Your task to perform on an android device: turn off sleep mode Image 0: 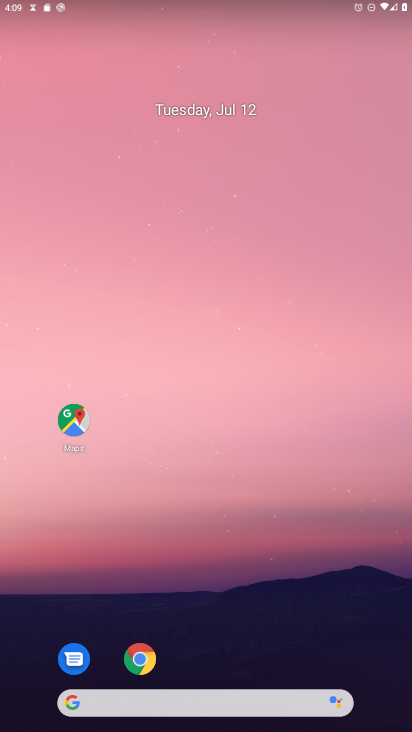
Step 0: drag from (189, 380) to (199, 185)
Your task to perform on an android device: turn off sleep mode Image 1: 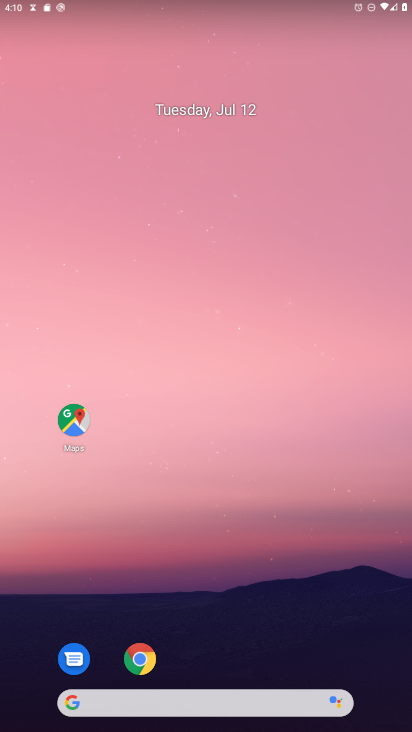
Step 1: drag from (199, 668) to (164, 77)
Your task to perform on an android device: turn off sleep mode Image 2: 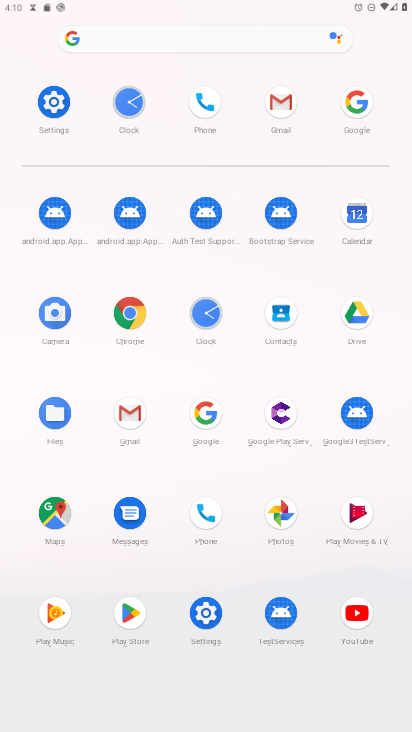
Step 2: click (55, 110)
Your task to perform on an android device: turn off sleep mode Image 3: 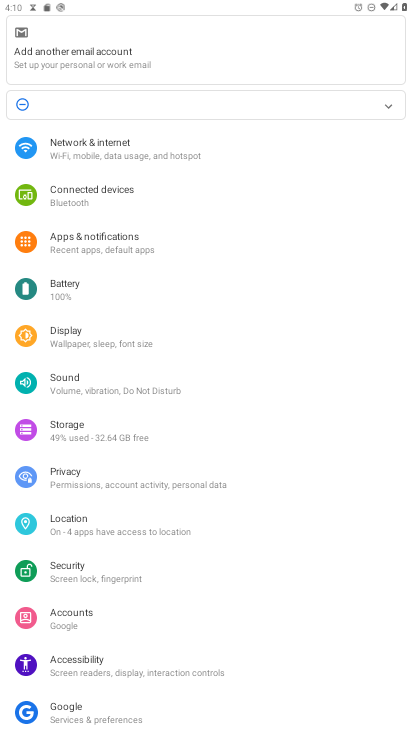
Step 3: task complete